Your task to perform on an android device: Go to battery settings Image 0: 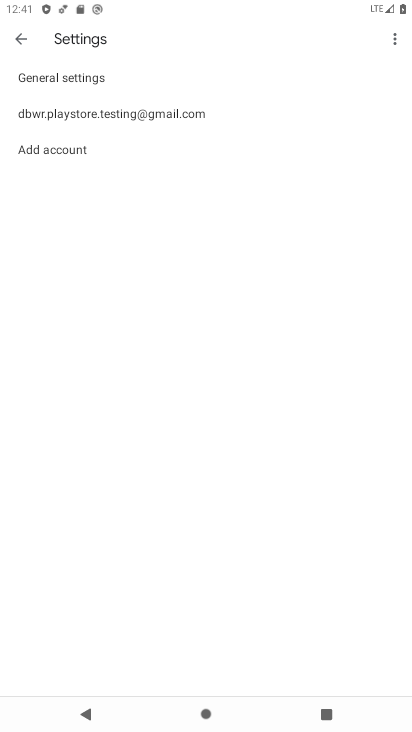
Step 0: press home button
Your task to perform on an android device: Go to battery settings Image 1: 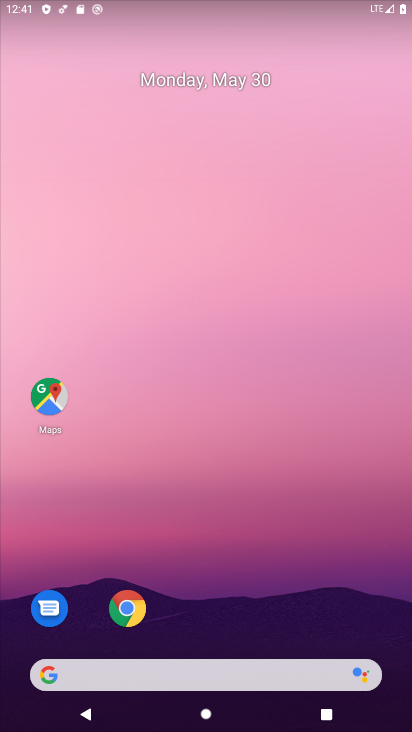
Step 1: drag from (229, 634) to (334, 84)
Your task to perform on an android device: Go to battery settings Image 2: 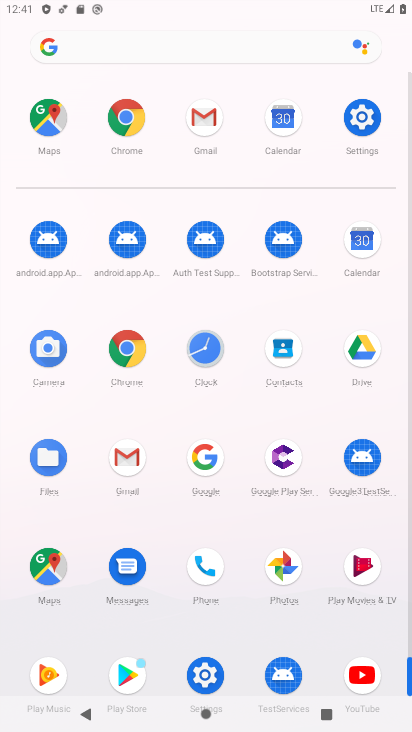
Step 2: click (206, 671)
Your task to perform on an android device: Go to battery settings Image 3: 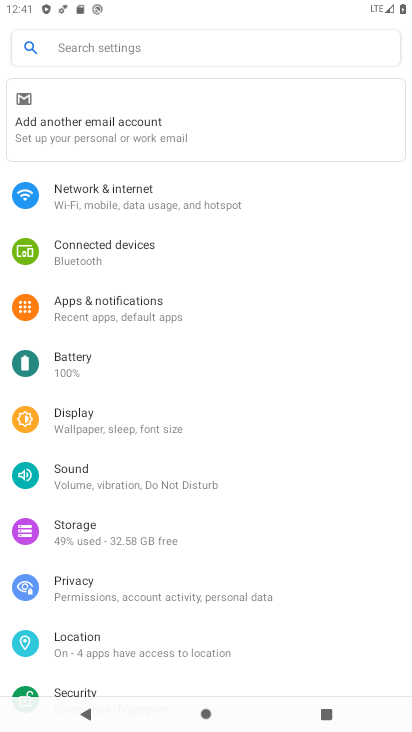
Step 3: click (117, 363)
Your task to perform on an android device: Go to battery settings Image 4: 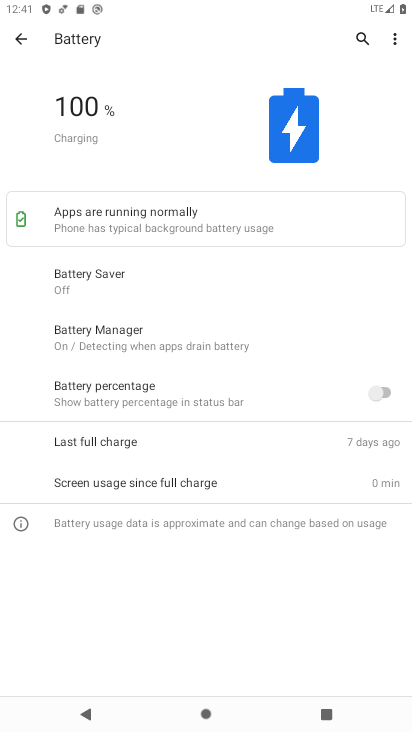
Step 4: task complete